Your task to perform on an android device: turn pop-ups on in chrome Image 0: 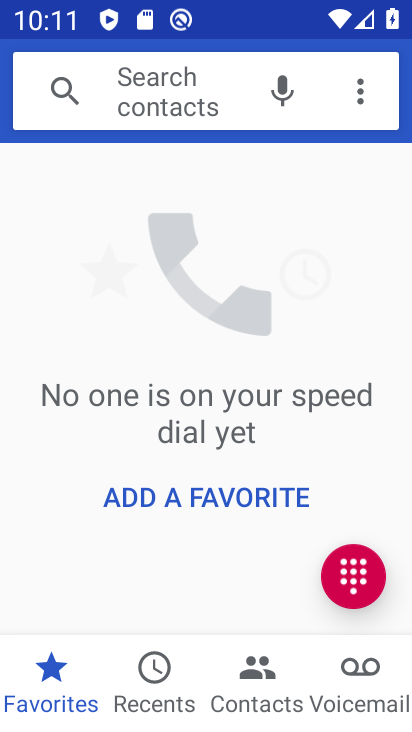
Step 0: press home button
Your task to perform on an android device: turn pop-ups on in chrome Image 1: 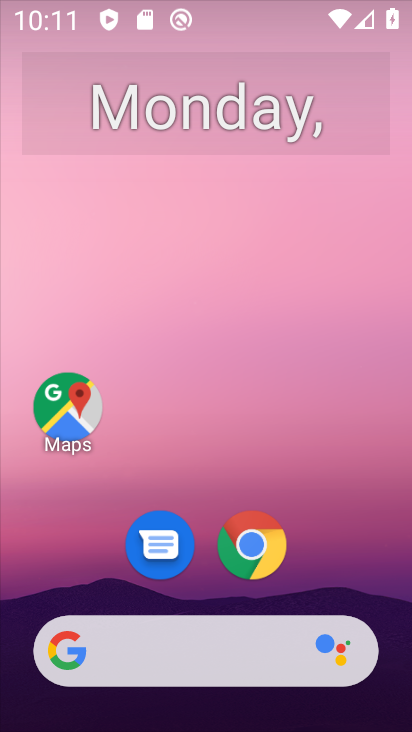
Step 1: drag from (370, 600) to (318, 225)
Your task to perform on an android device: turn pop-ups on in chrome Image 2: 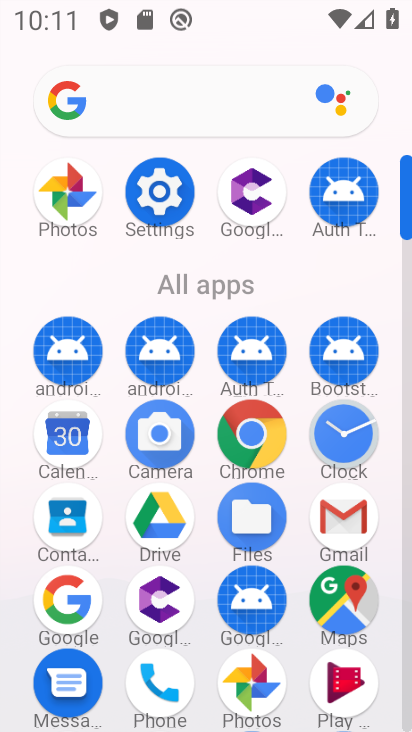
Step 2: click (252, 458)
Your task to perform on an android device: turn pop-ups on in chrome Image 3: 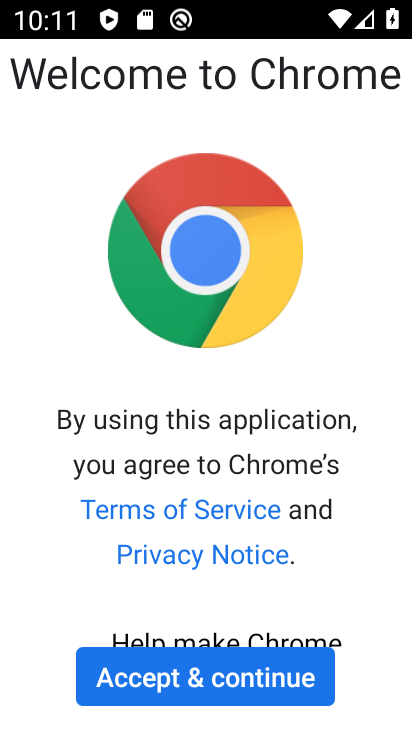
Step 3: click (301, 678)
Your task to perform on an android device: turn pop-ups on in chrome Image 4: 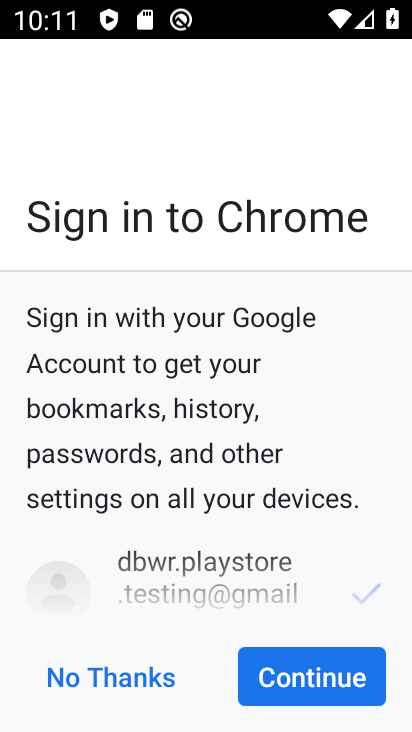
Step 4: click (322, 666)
Your task to perform on an android device: turn pop-ups on in chrome Image 5: 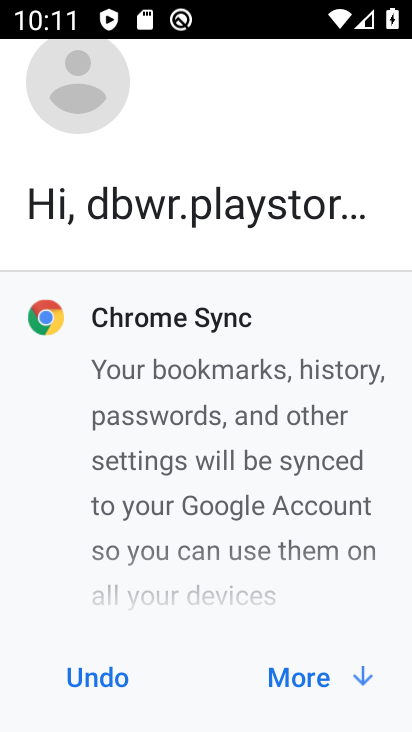
Step 5: click (333, 675)
Your task to perform on an android device: turn pop-ups on in chrome Image 6: 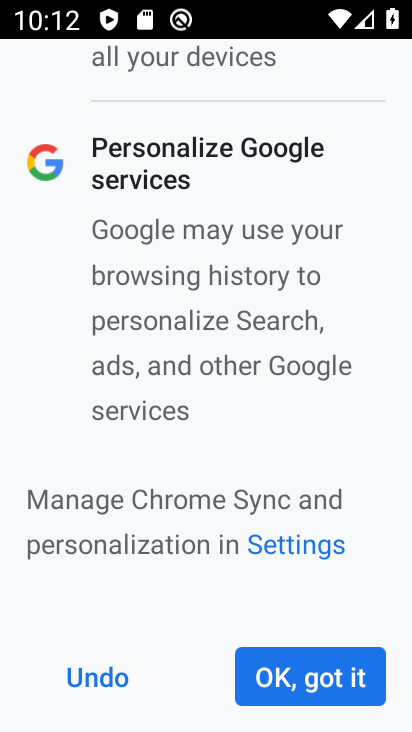
Step 6: click (333, 674)
Your task to perform on an android device: turn pop-ups on in chrome Image 7: 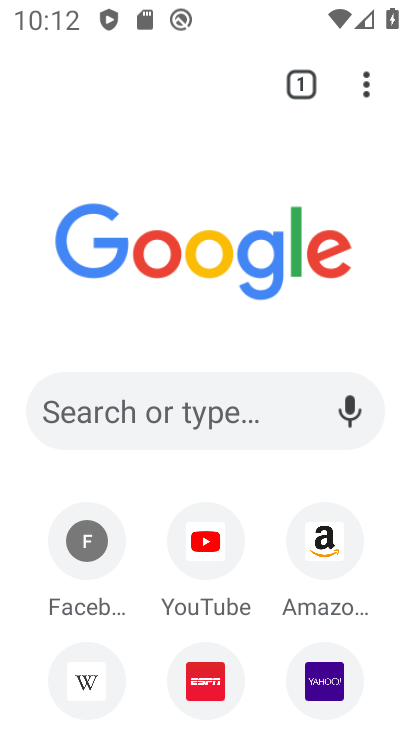
Step 7: drag from (372, 96) to (185, 599)
Your task to perform on an android device: turn pop-ups on in chrome Image 8: 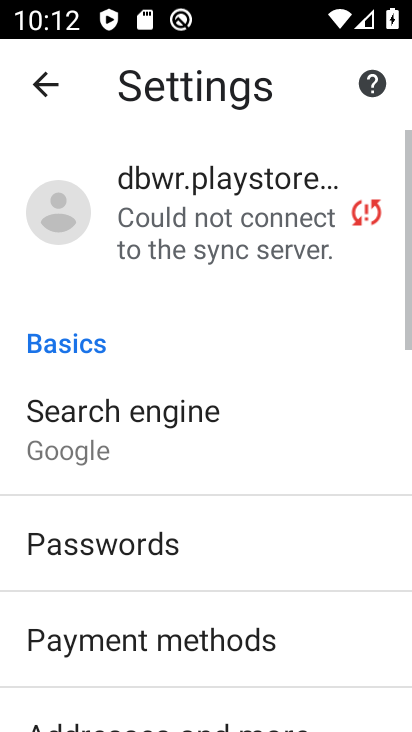
Step 8: drag from (304, 661) to (337, 269)
Your task to perform on an android device: turn pop-ups on in chrome Image 9: 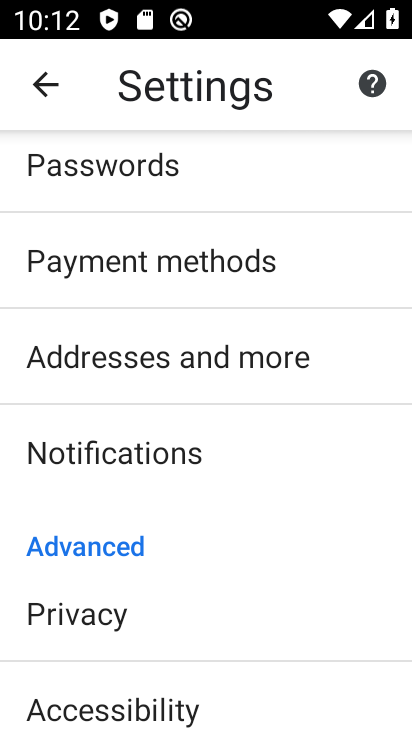
Step 9: drag from (233, 680) to (273, 302)
Your task to perform on an android device: turn pop-ups on in chrome Image 10: 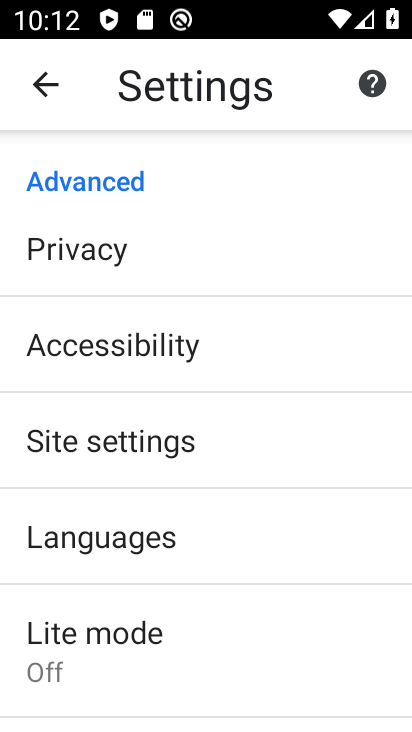
Step 10: drag from (239, 697) to (232, 335)
Your task to perform on an android device: turn pop-ups on in chrome Image 11: 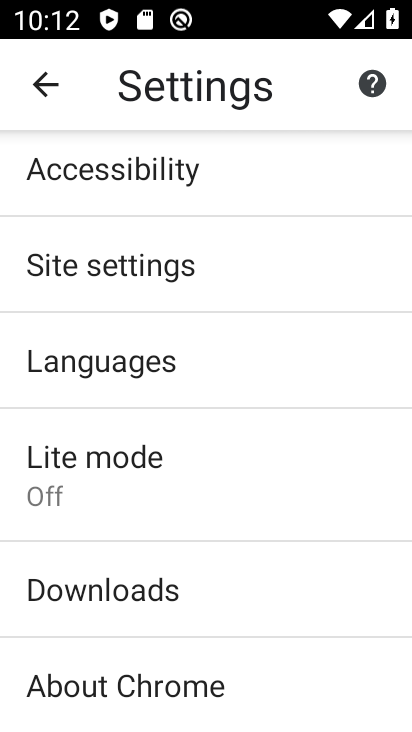
Step 11: click (161, 251)
Your task to perform on an android device: turn pop-ups on in chrome Image 12: 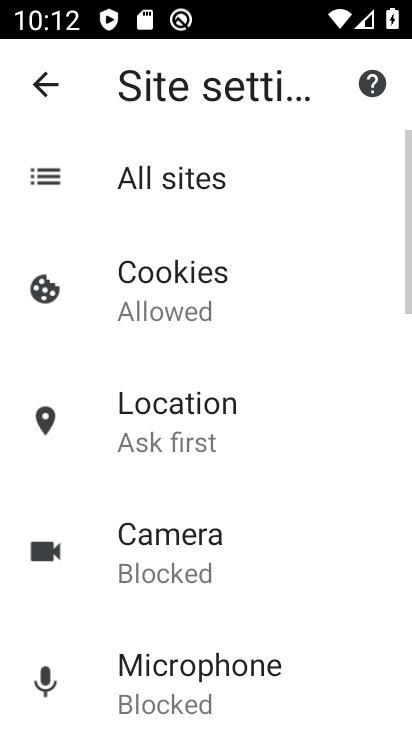
Step 12: drag from (263, 675) to (280, 317)
Your task to perform on an android device: turn pop-ups on in chrome Image 13: 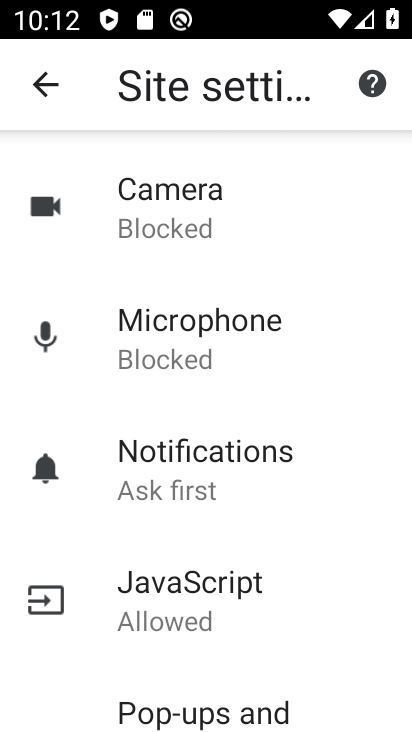
Step 13: drag from (282, 651) to (292, 374)
Your task to perform on an android device: turn pop-ups on in chrome Image 14: 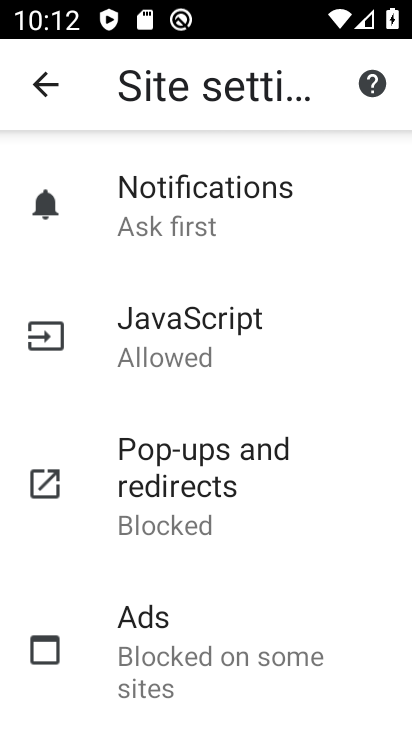
Step 14: click (246, 462)
Your task to perform on an android device: turn pop-ups on in chrome Image 15: 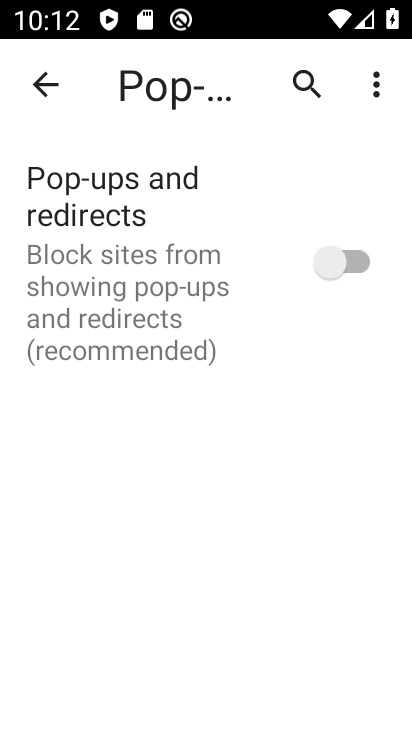
Step 15: click (363, 252)
Your task to perform on an android device: turn pop-ups on in chrome Image 16: 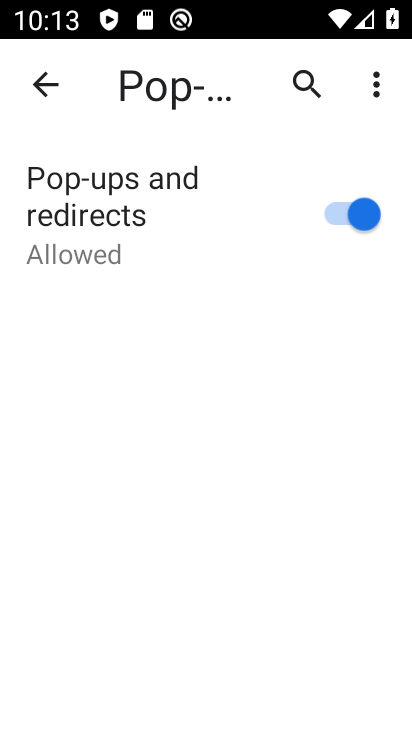
Step 16: task complete